Your task to perform on an android device: open a new tab in the chrome app Image 0: 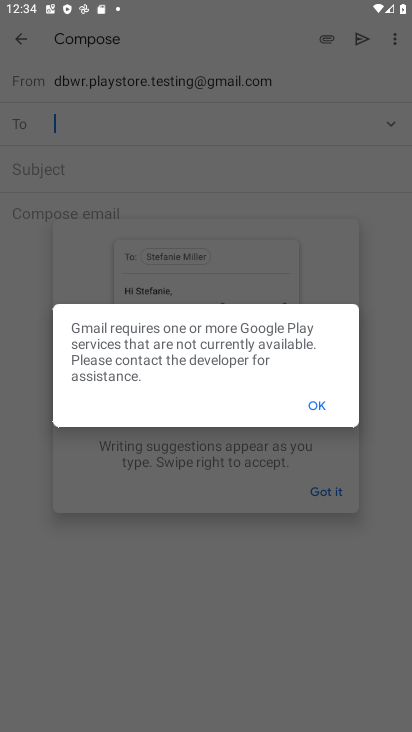
Step 0: press home button
Your task to perform on an android device: open a new tab in the chrome app Image 1: 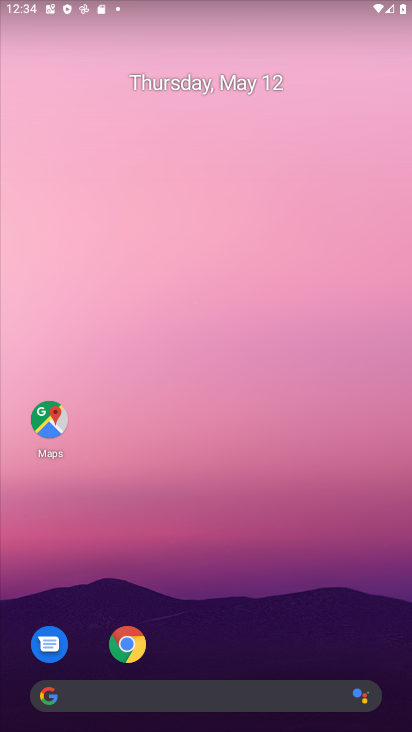
Step 1: click (124, 642)
Your task to perform on an android device: open a new tab in the chrome app Image 2: 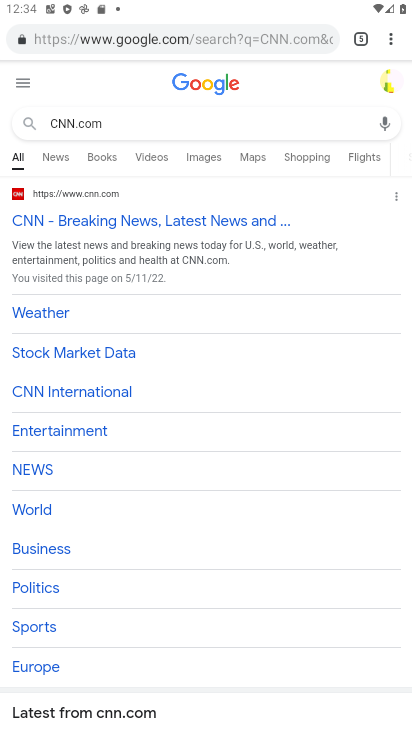
Step 2: click (393, 43)
Your task to perform on an android device: open a new tab in the chrome app Image 3: 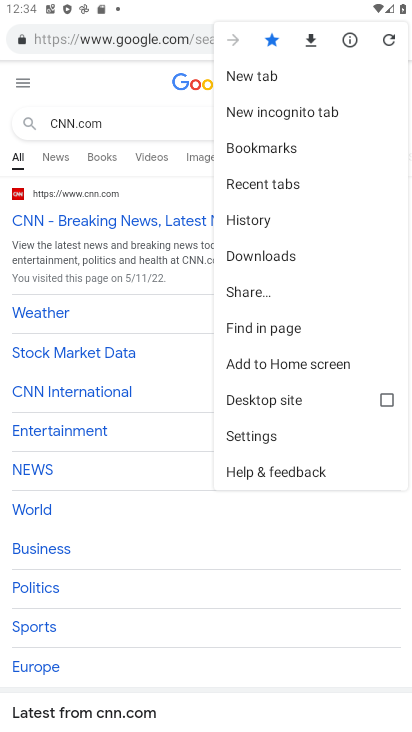
Step 3: click (293, 432)
Your task to perform on an android device: open a new tab in the chrome app Image 4: 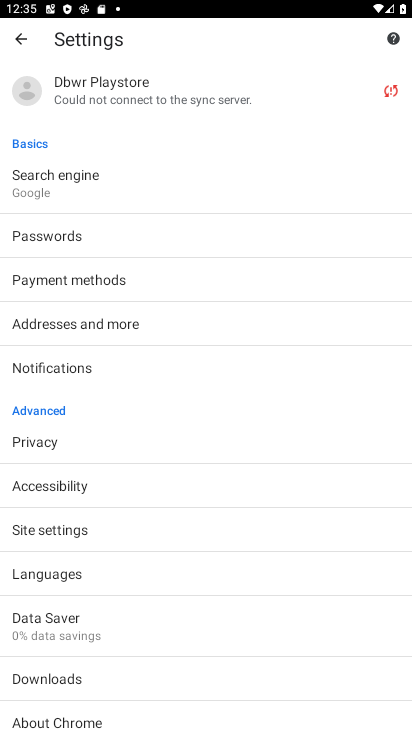
Step 4: click (14, 28)
Your task to perform on an android device: open a new tab in the chrome app Image 5: 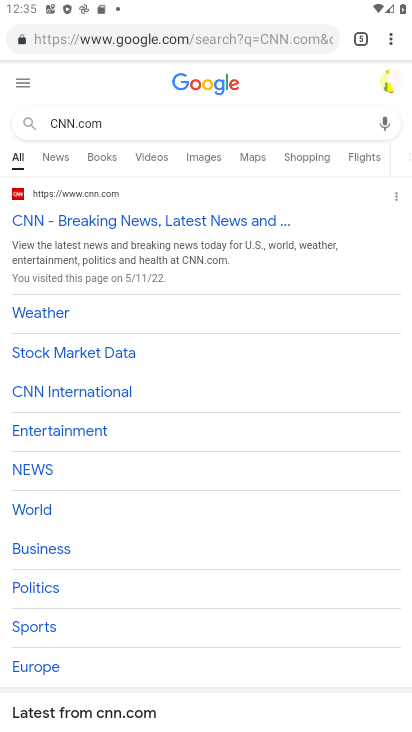
Step 5: click (368, 41)
Your task to perform on an android device: open a new tab in the chrome app Image 6: 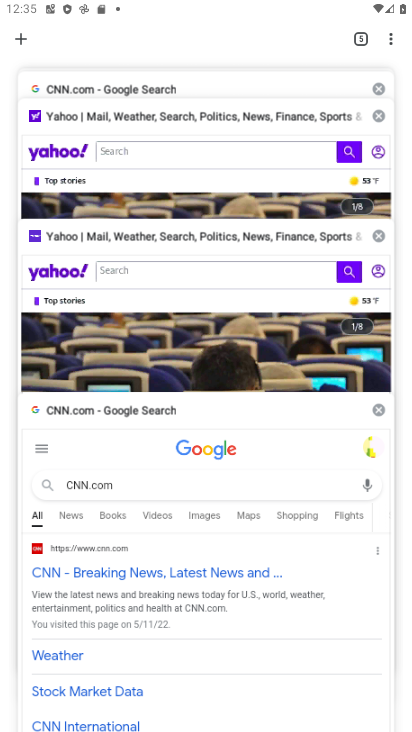
Step 6: click (21, 33)
Your task to perform on an android device: open a new tab in the chrome app Image 7: 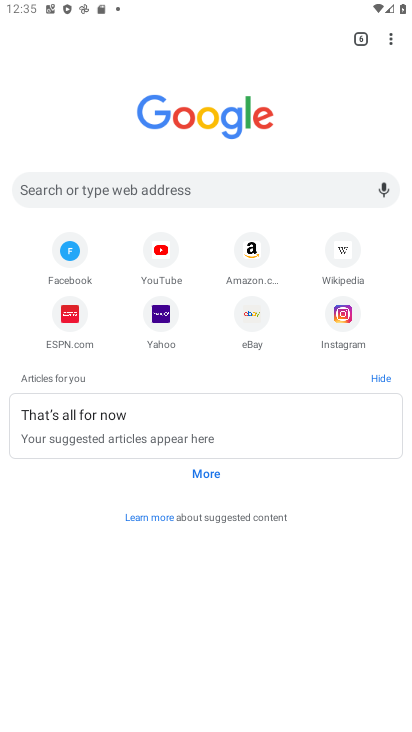
Step 7: task complete